Your task to perform on an android device: remove spam from my inbox in the gmail app Image 0: 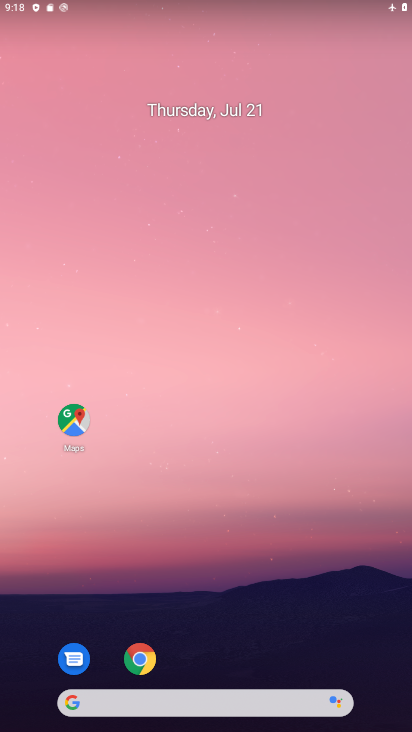
Step 0: drag from (198, 649) to (147, 102)
Your task to perform on an android device: remove spam from my inbox in the gmail app Image 1: 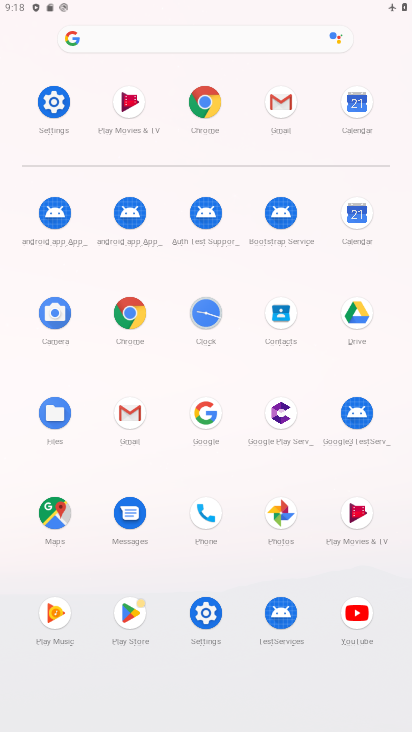
Step 1: click (130, 405)
Your task to perform on an android device: remove spam from my inbox in the gmail app Image 2: 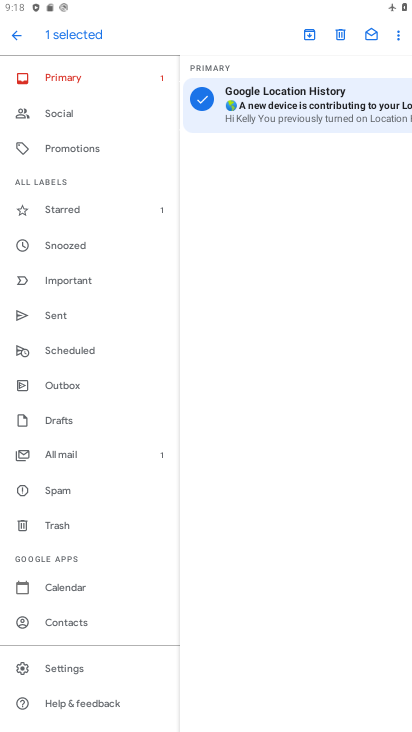
Step 2: click (55, 490)
Your task to perform on an android device: remove spam from my inbox in the gmail app Image 3: 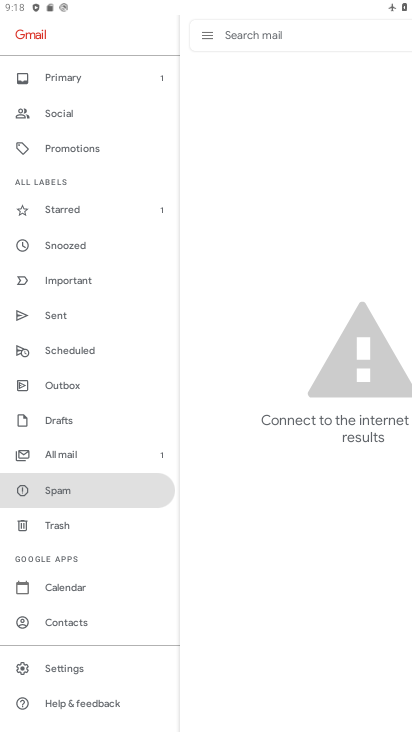
Step 3: task complete